Your task to perform on an android device: Open CNN.com Image 0: 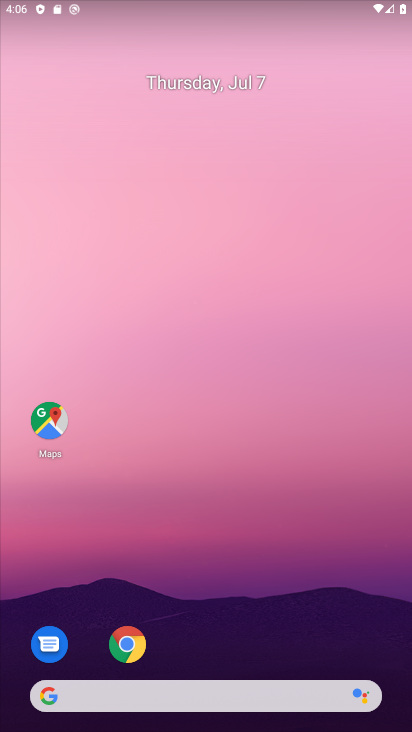
Step 0: click (134, 638)
Your task to perform on an android device: Open CNN.com Image 1: 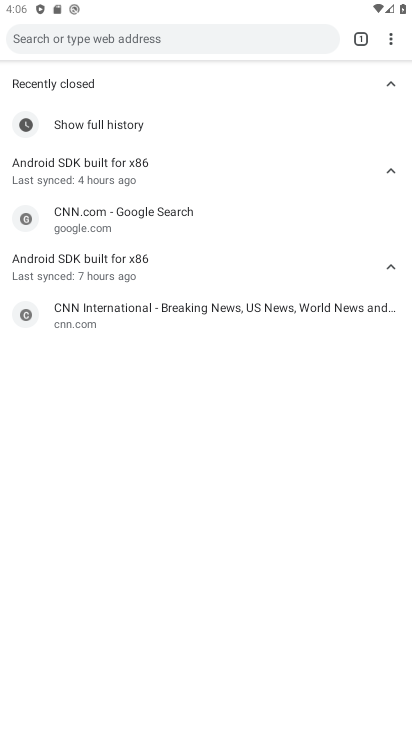
Step 1: click (355, 34)
Your task to perform on an android device: Open CNN.com Image 2: 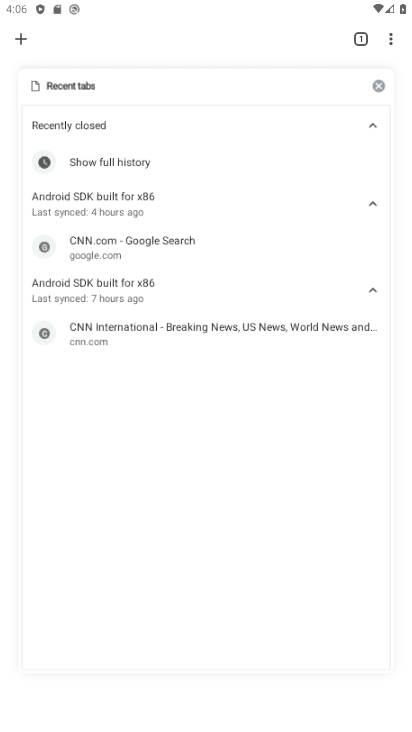
Step 2: click (21, 38)
Your task to perform on an android device: Open CNN.com Image 3: 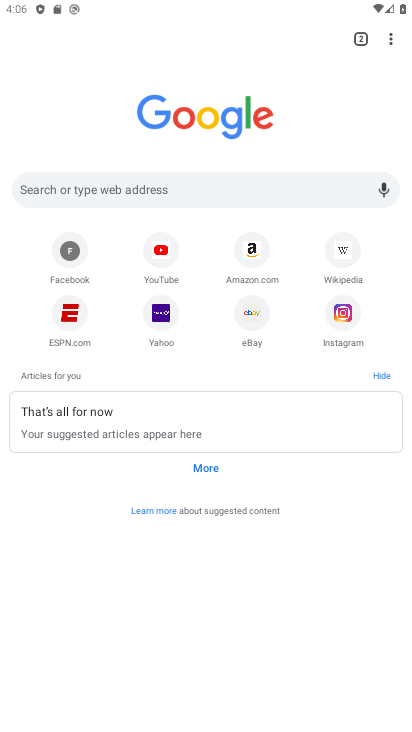
Step 3: click (147, 195)
Your task to perform on an android device: Open CNN.com Image 4: 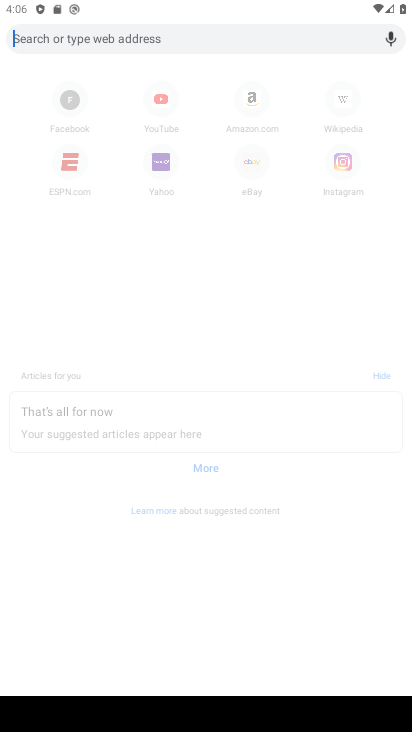
Step 4: type "CNN.com"
Your task to perform on an android device: Open CNN.com Image 5: 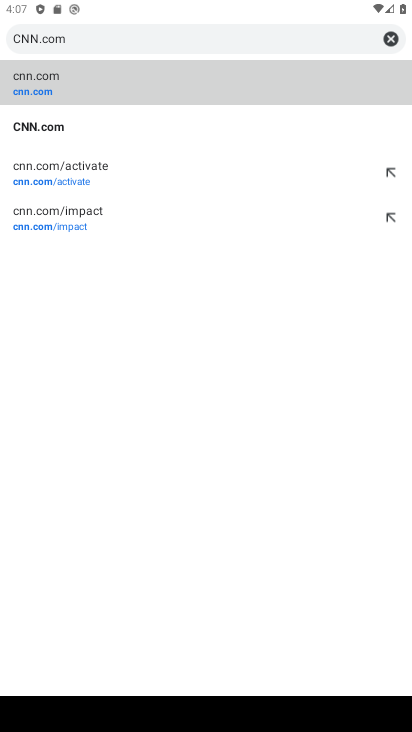
Step 5: click (40, 89)
Your task to perform on an android device: Open CNN.com Image 6: 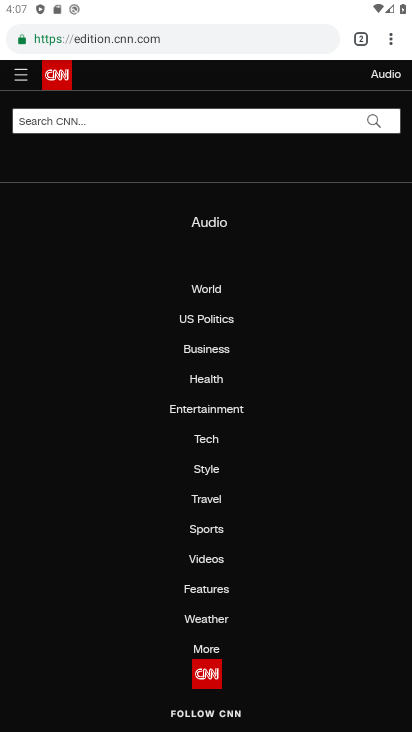
Step 6: task complete